Your task to perform on an android device: Go to display settings Image 0: 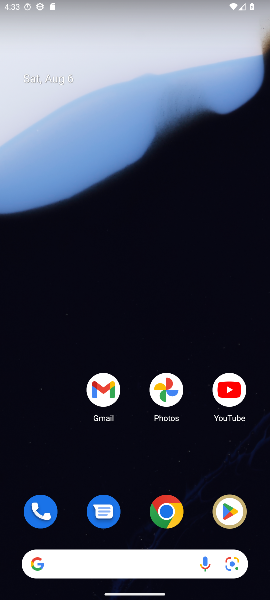
Step 0: drag from (147, 485) to (167, 7)
Your task to perform on an android device: Go to display settings Image 1: 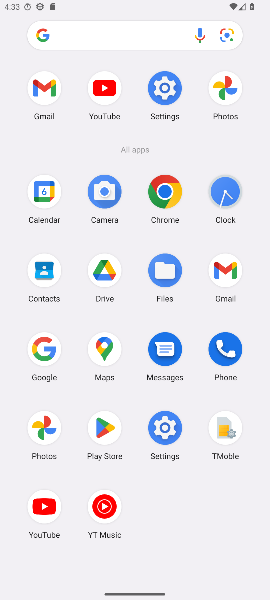
Step 1: click (163, 432)
Your task to perform on an android device: Go to display settings Image 2: 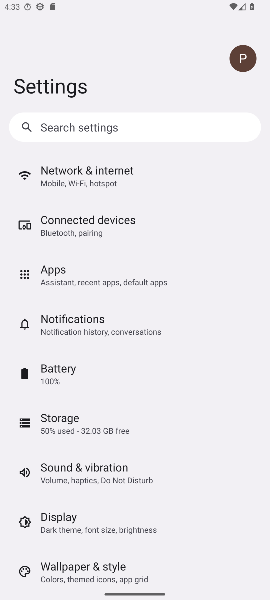
Step 2: click (77, 522)
Your task to perform on an android device: Go to display settings Image 3: 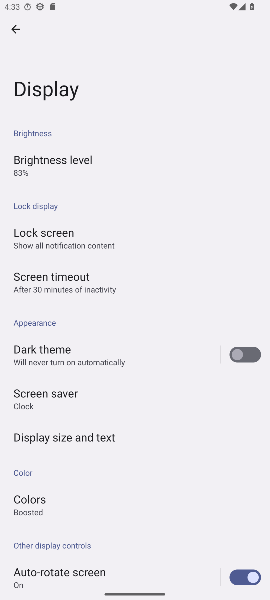
Step 3: task complete